Your task to perform on an android device: Open battery settings Image 0: 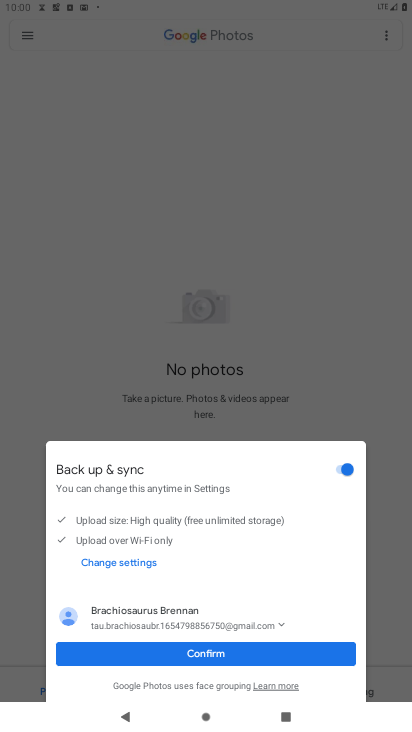
Step 0: press home button
Your task to perform on an android device: Open battery settings Image 1: 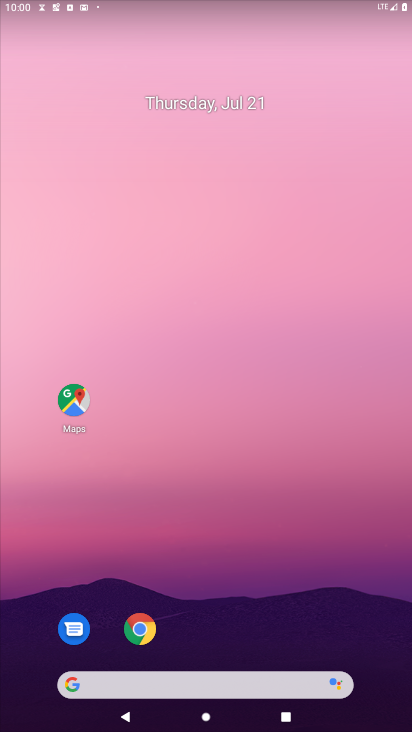
Step 1: drag from (282, 514) to (265, 81)
Your task to perform on an android device: Open battery settings Image 2: 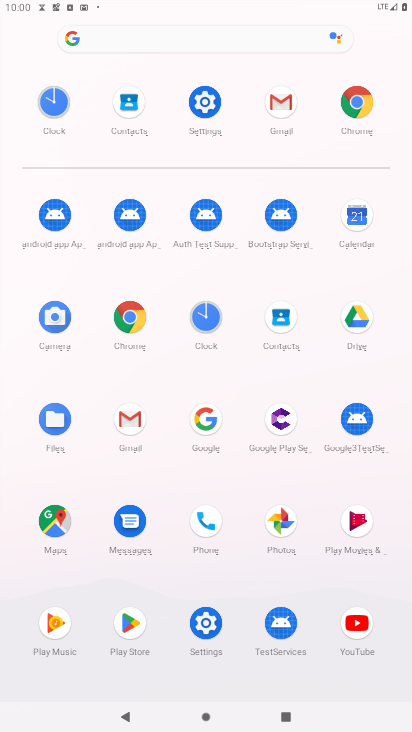
Step 2: click (207, 104)
Your task to perform on an android device: Open battery settings Image 3: 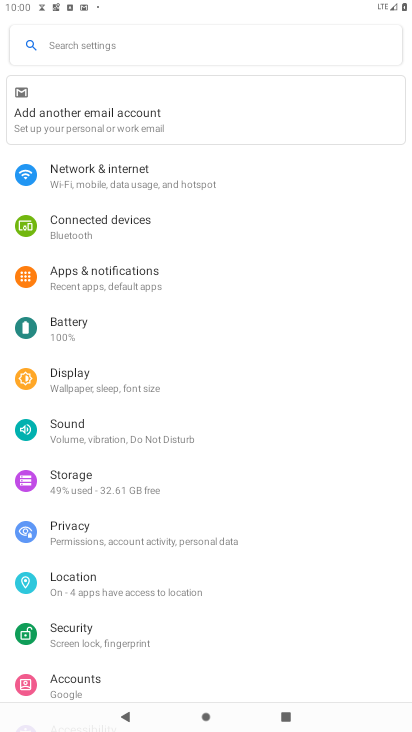
Step 3: click (207, 327)
Your task to perform on an android device: Open battery settings Image 4: 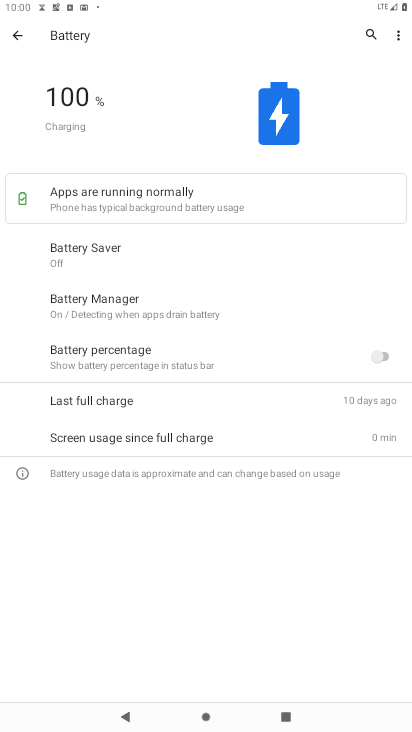
Step 4: task complete